Your task to perform on an android device: Search for the new Apple Watch on Best Buy Image 0: 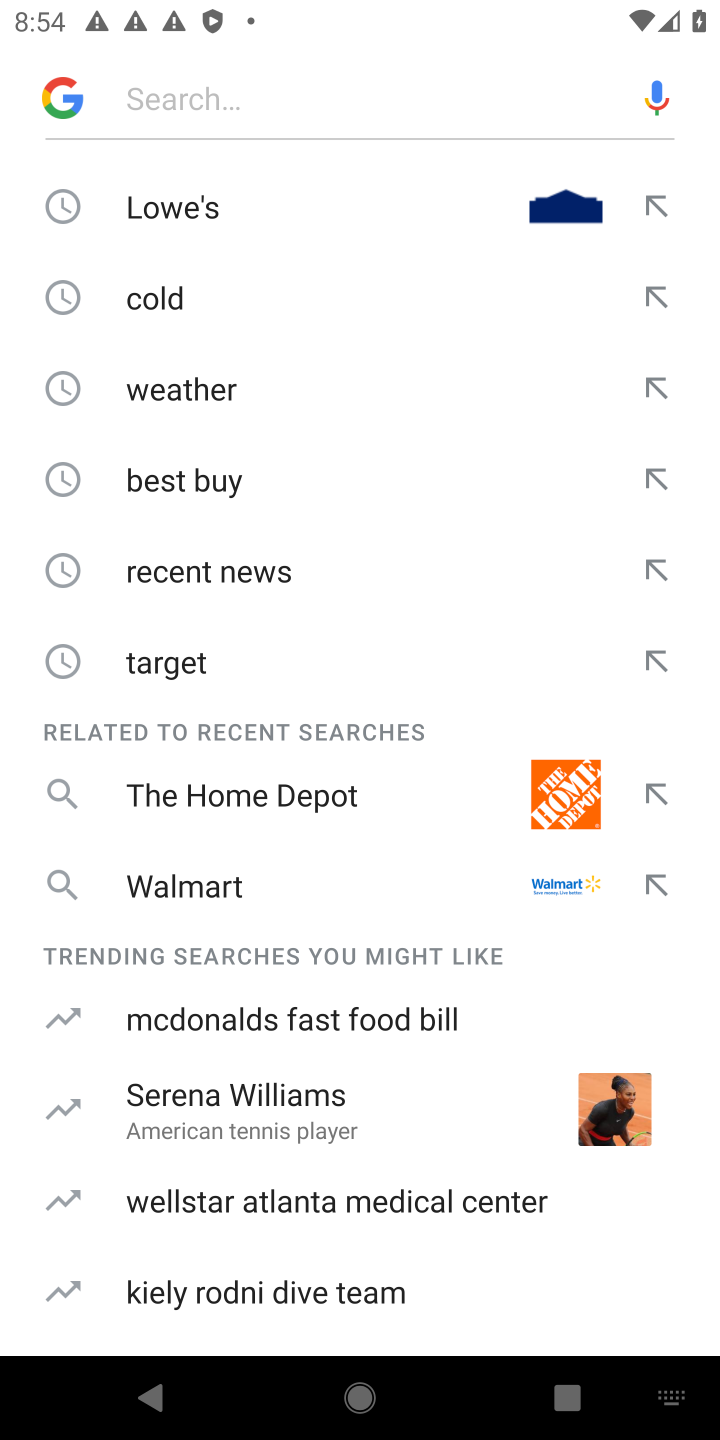
Step 0: click (185, 480)
Your task to perform on an android device: Search for the new Apple Watch on Best Buy Image 1: 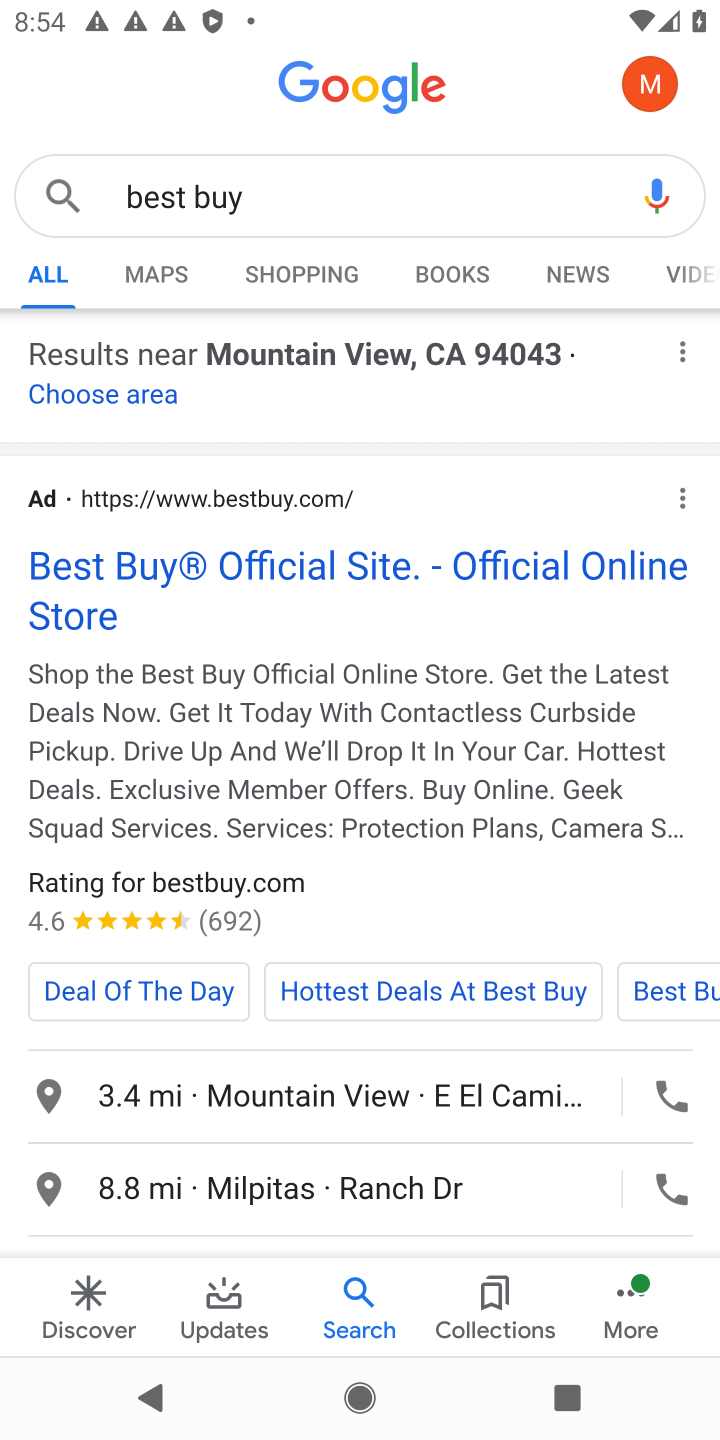
Step 1: click (120, 509)
Your task to perform on an android device: Search for the new Apple Watch on Best Buy Image 2: 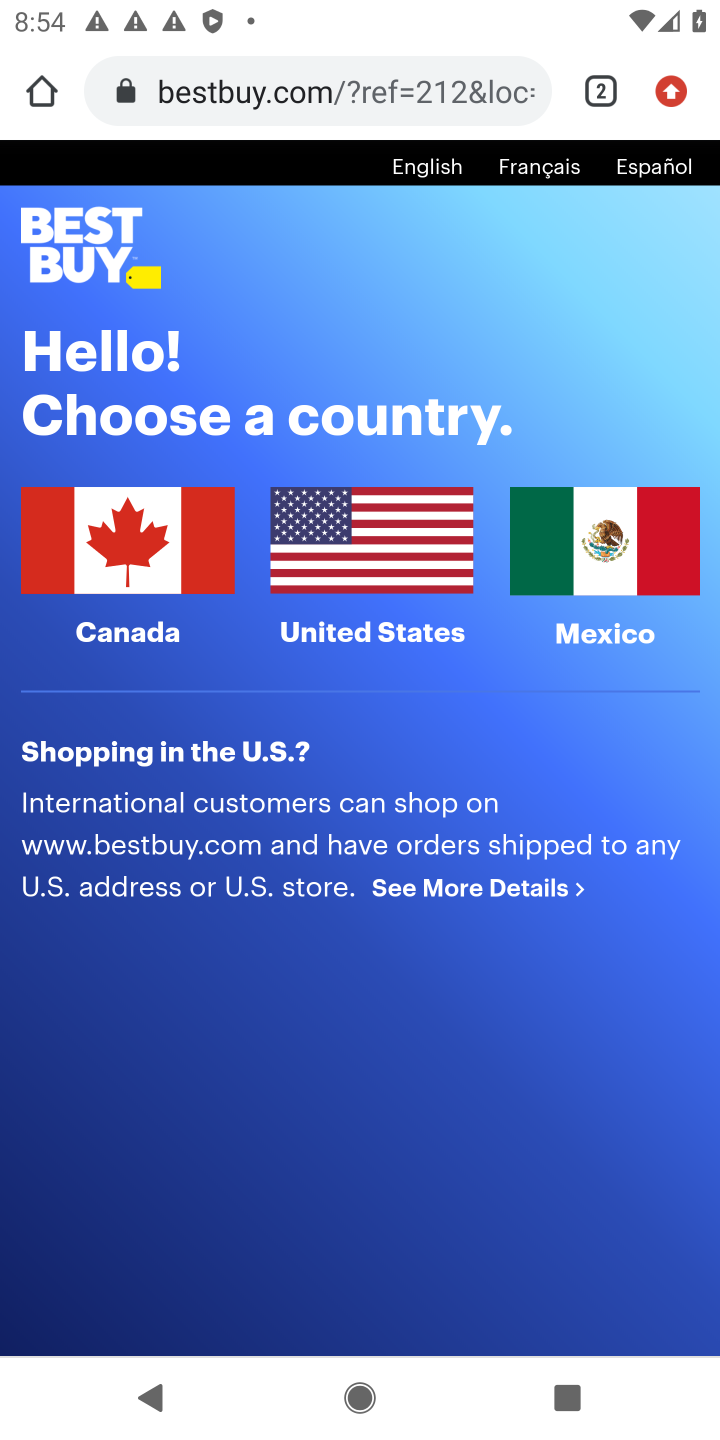
Step 2: click (384, 550)
Your task to perform on an android device: Search for the new Apple Watch on Best Buy Image 3: 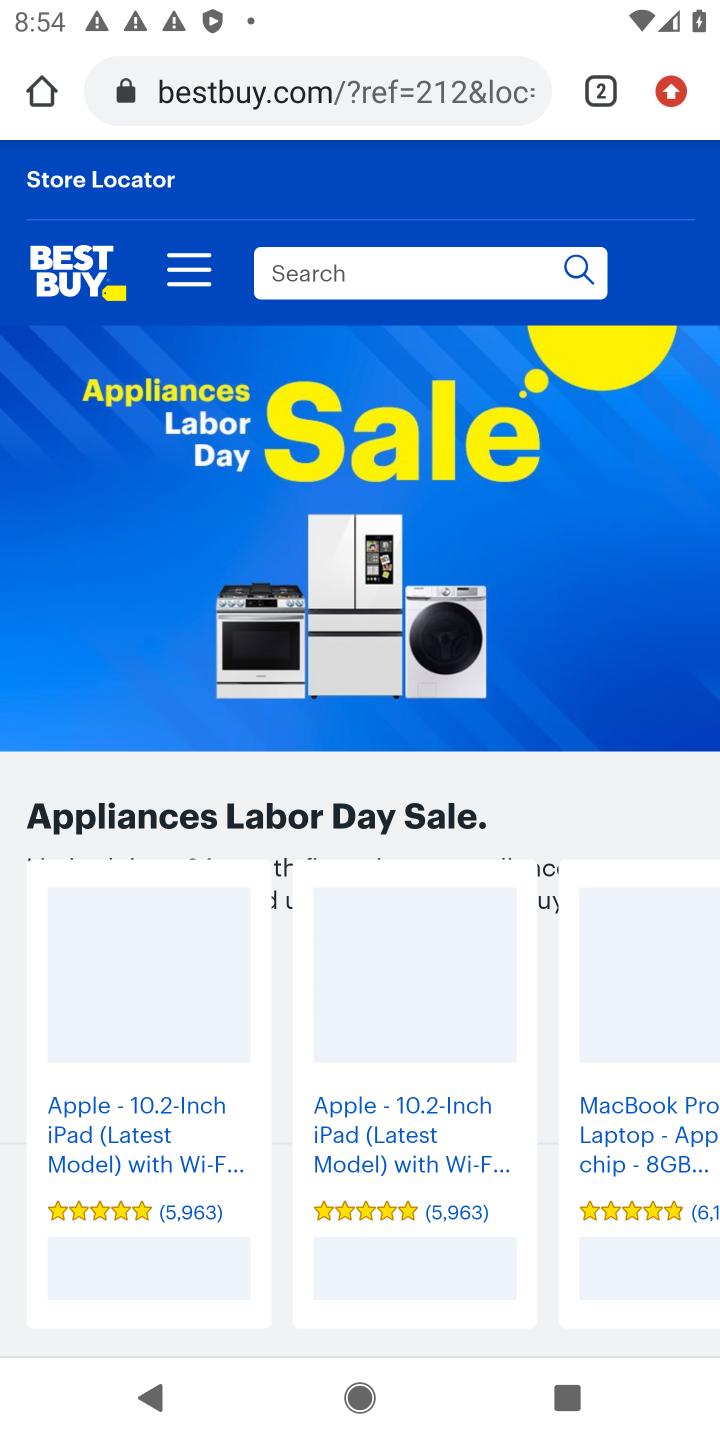
Step 3: click (364, 273)
Your task to perform on an android device: Search for the new Apple Watch on Best Buy Image 4: 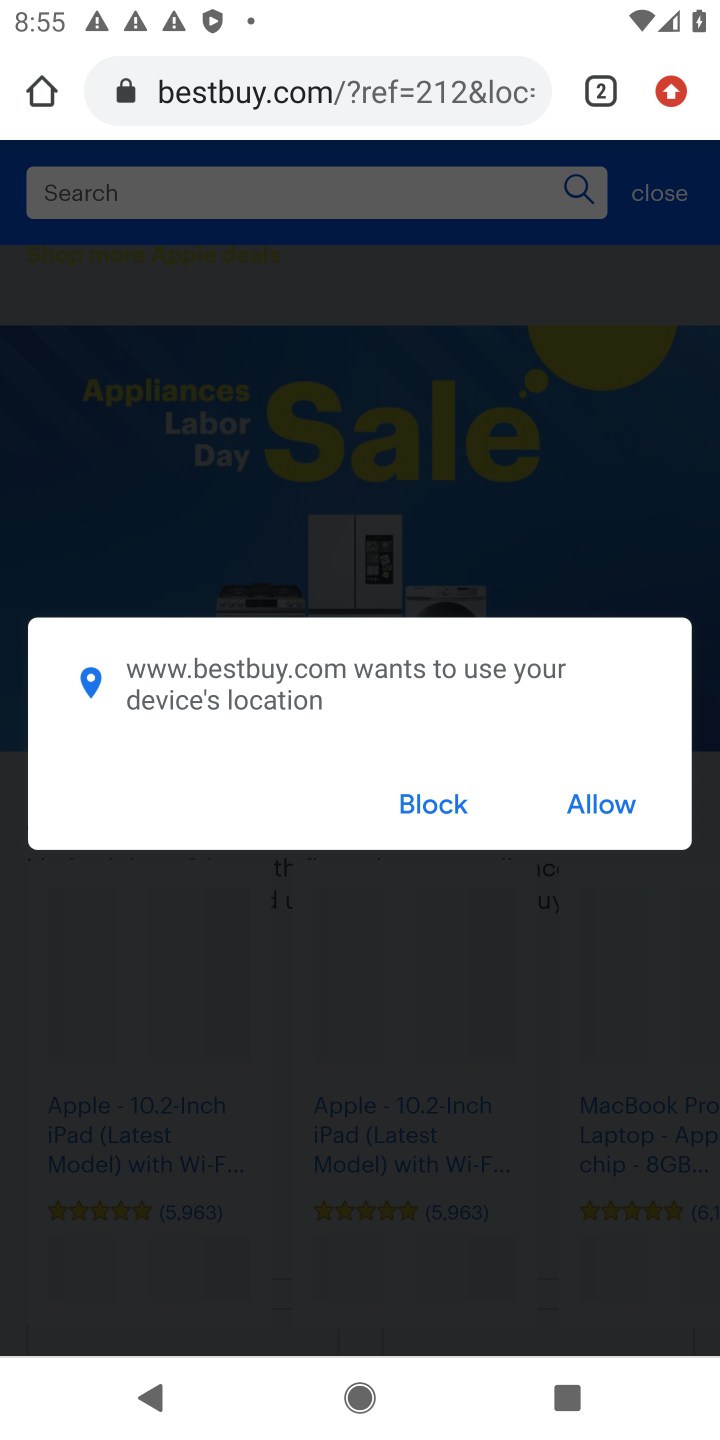
Step 4: type "new apple watch"
Your task to perform on an android device: Search for the new Apple Watch on Best Buy Image 5: 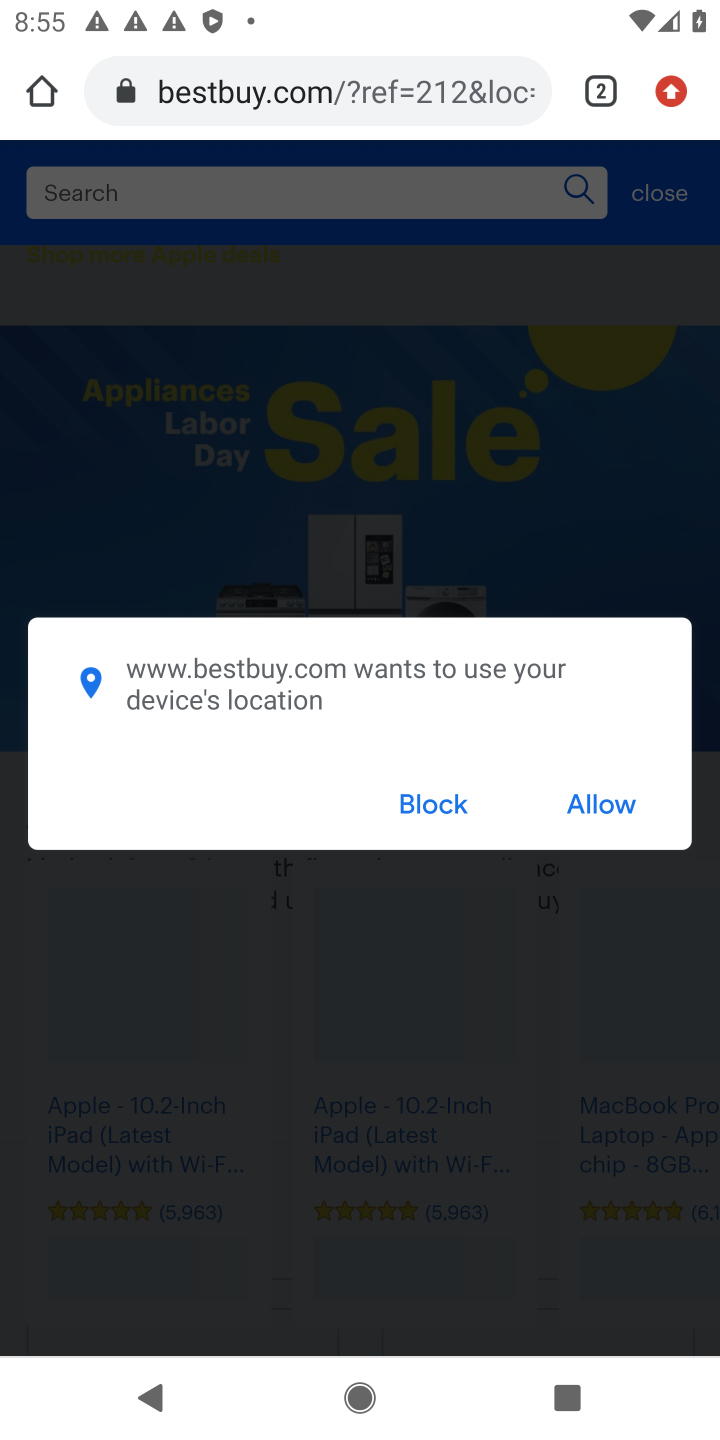
Step 5: click (428, 802)
Your task to perform on an android device: Search for the new Apple Watch on Best Buy Image 6: 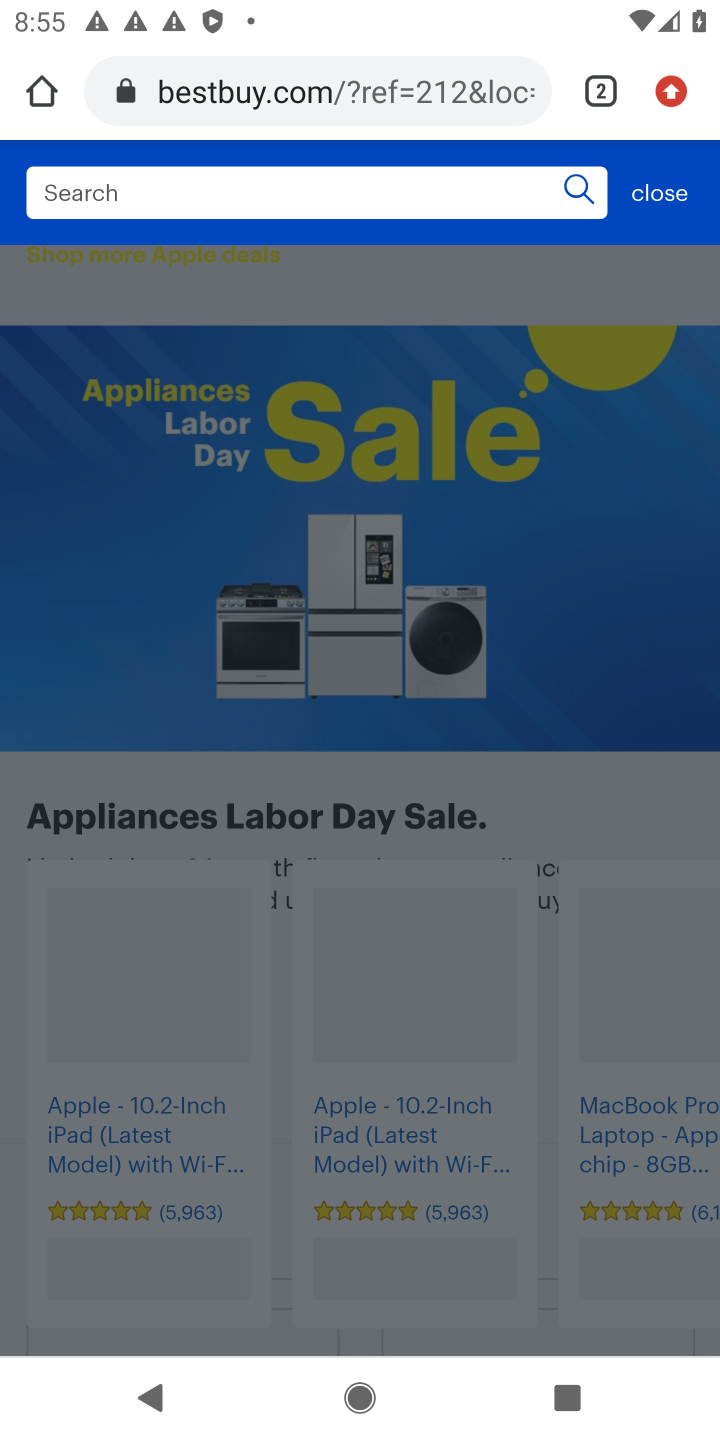
Step 6: click (152, 173)
Your task to perform on an android device: Search for the new Apple Watch on Best Buy Image 7: 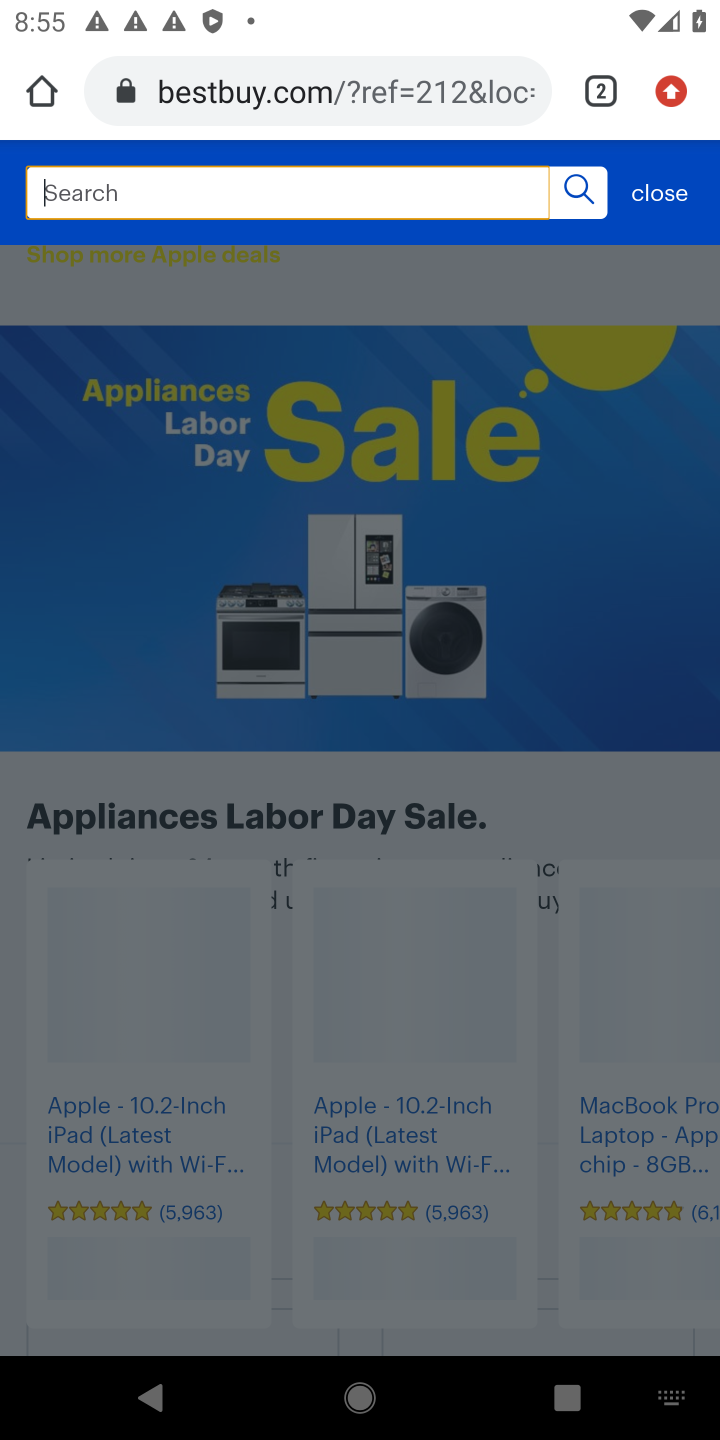
Step 7: type "the new Apple Watch"
Your task to perform on an android device: Search for the new Apple Watch on Best Buy Image 8: 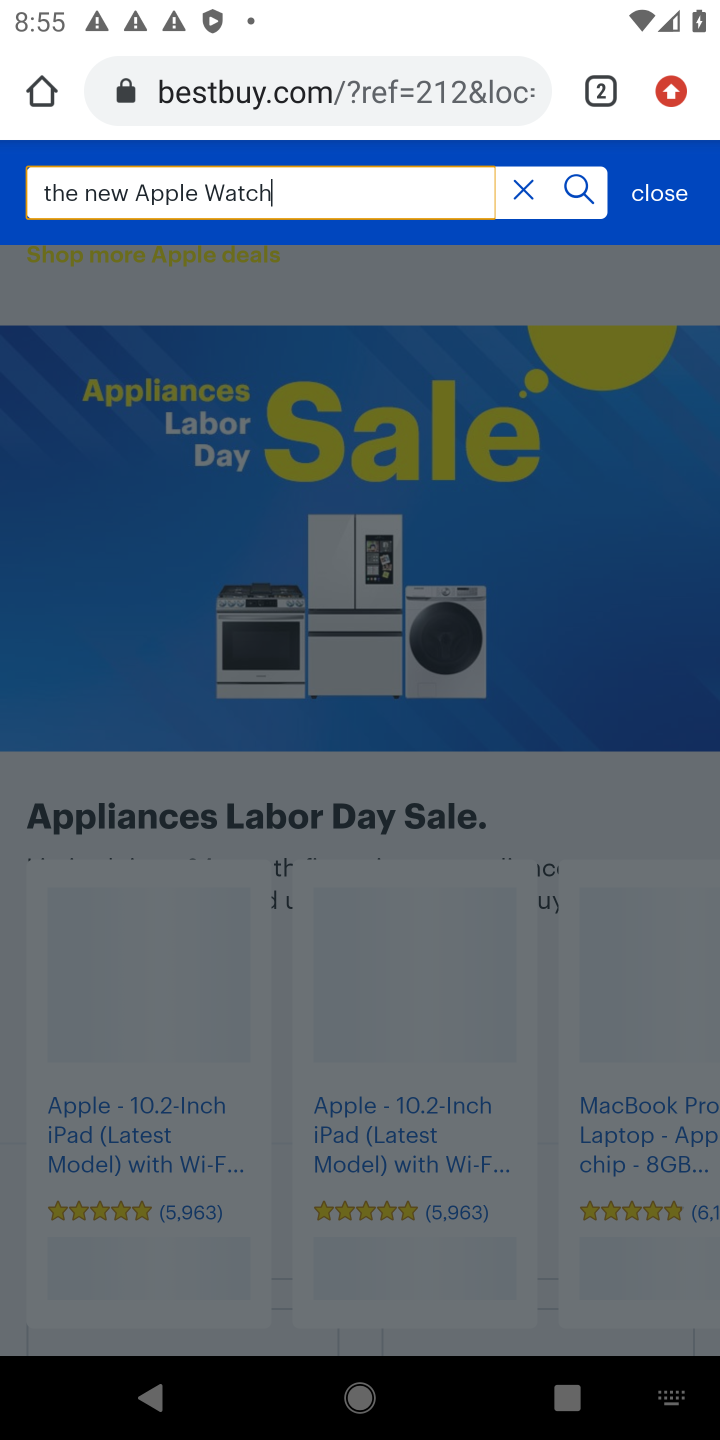
Step 8: click (566, 188)
Your task to perform on an android device: Search for the new Apple Watch on Best Buy Image 9: 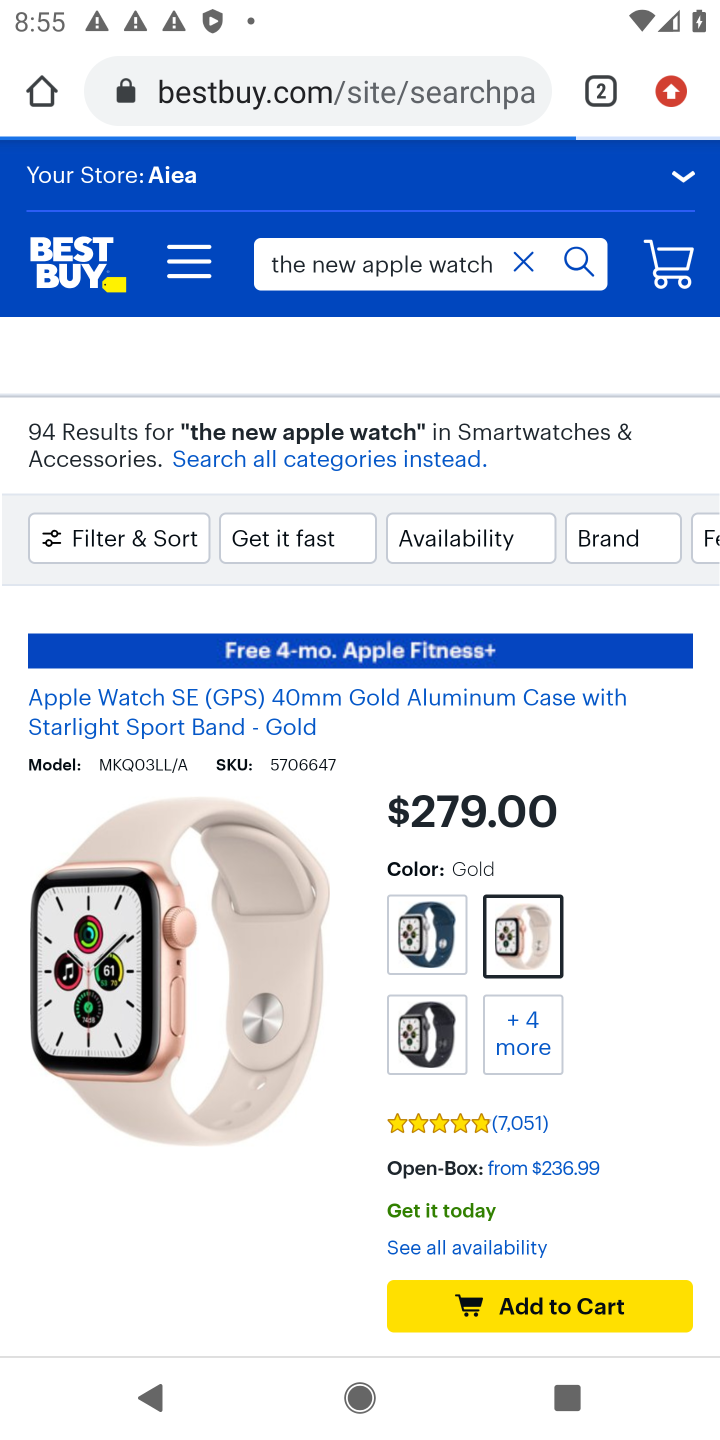
Step 9: task complete